Your task to perform on an android device: Open Google Image 0: 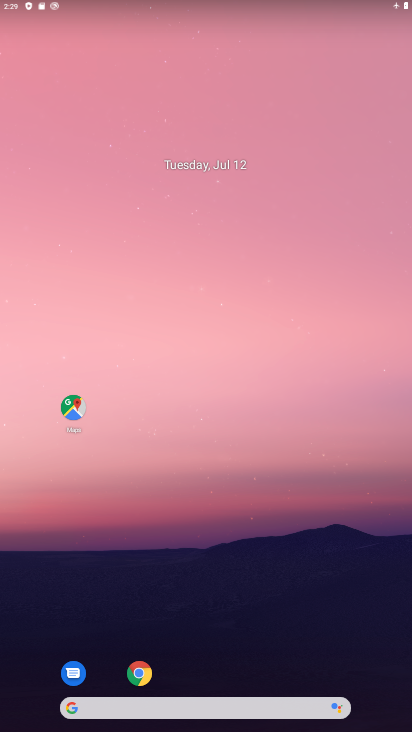
Step 0: drag from (222, 627) to (223, 255)
Your task to perform on an android device: Open Google Image 1: 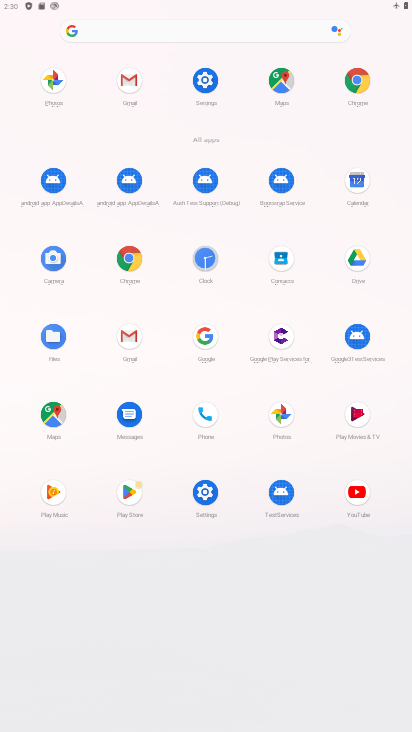
Step 1: click (197, 345)
Your task to perform on an android device: Open Google Image 2: 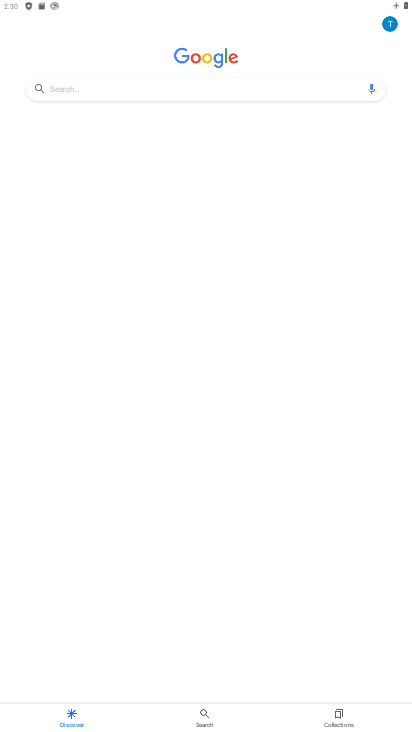
Step 2: task complete